Your task to perform on an android device: Search for pizza restaurants on Maps Image 0: 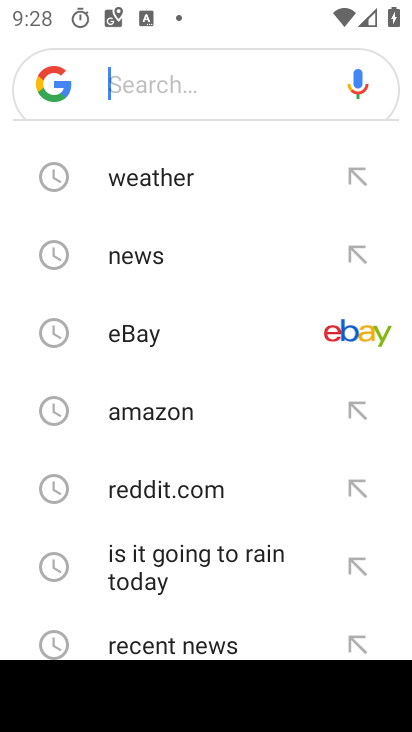
Step 0: press home button
Your task to perform on an android device: Search for pizza restaurants on Maps Image 1: 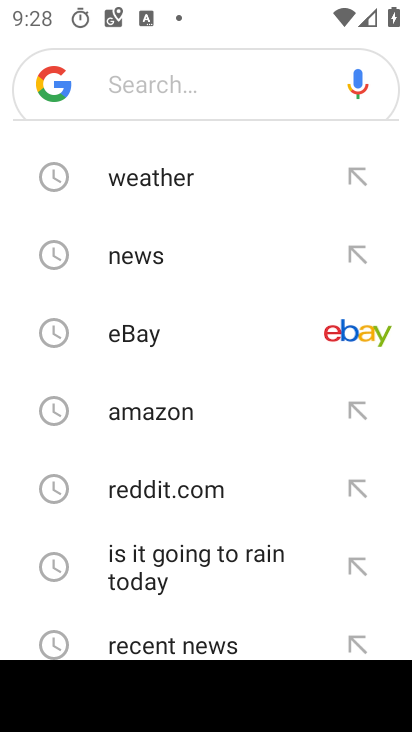
Step 1: press home button
Your task to perform on an android device: Search for pizza restaurants on Maps Image 2: 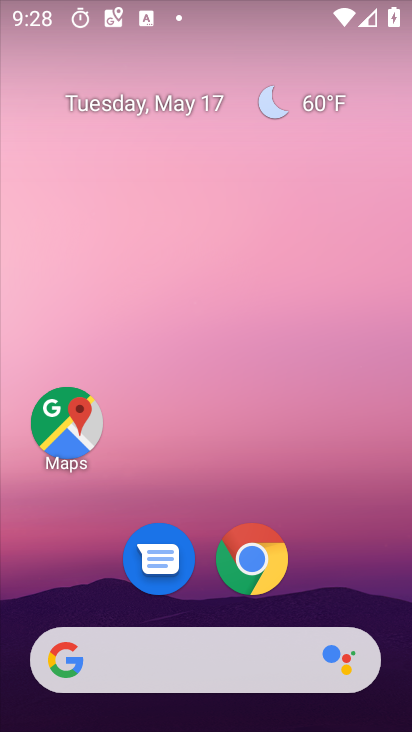
Step 2: drag from (229, 632) to (238, 43)
Your task to perform on an android device: Search for pizza restaurants on Maps Image 3: 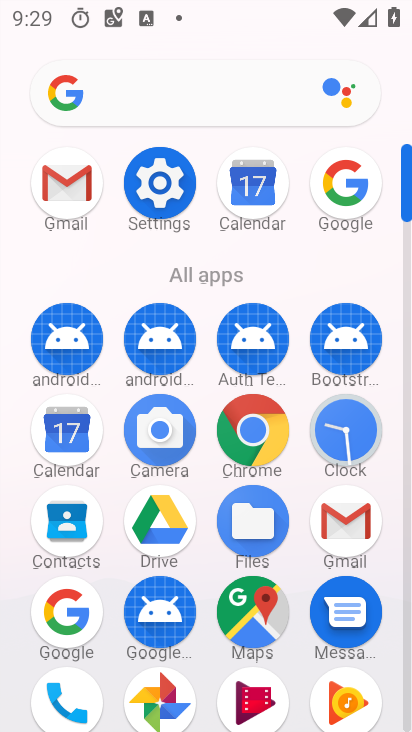
Step 3: click (239, 623)
Your task to perform on an android device: Search for pizza restaurants on Maps Image 4: 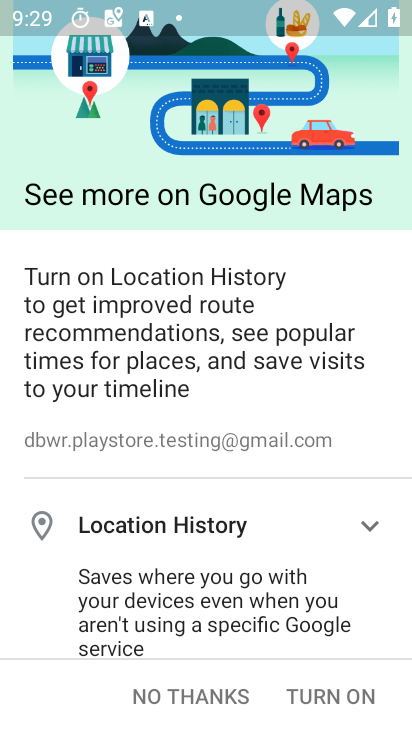
Step 4: click (347, 697)
Your task to perform on an android device: Search for pizza restaurants on Maps Image 5: 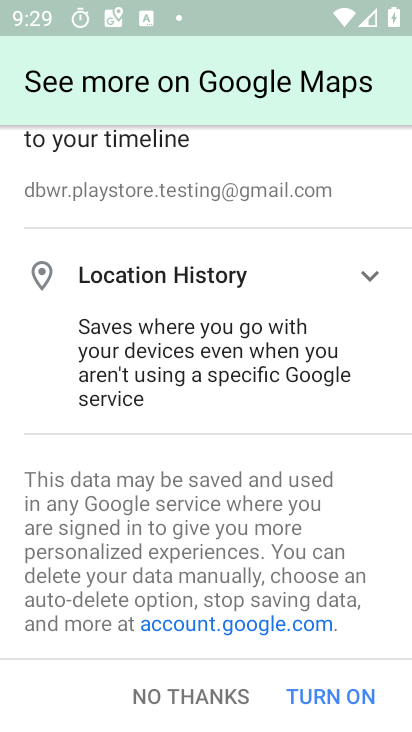
Step 5: click (346, 698)
Your task to perform on an android device: Search for pizza restaurants on Maps Image 6: 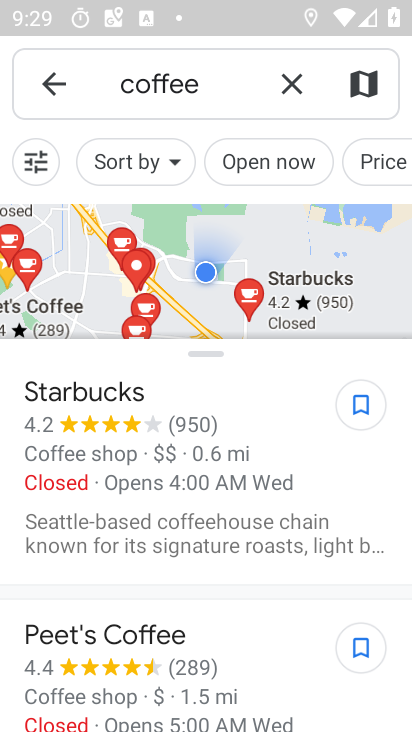
Step 6: click (285, 91)
Your task to perform on an android device: Search for pizza restaurants on Maps Image 7: 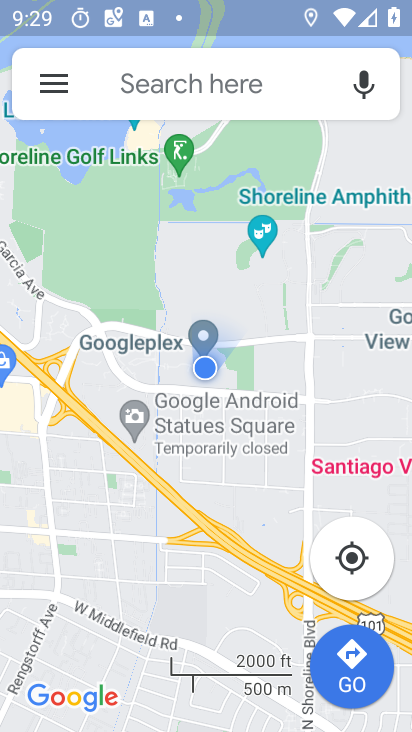
Step 7: click (276, 84)
Your task to perform on an android device: Search for pizza restaurants on Maps Image 8: 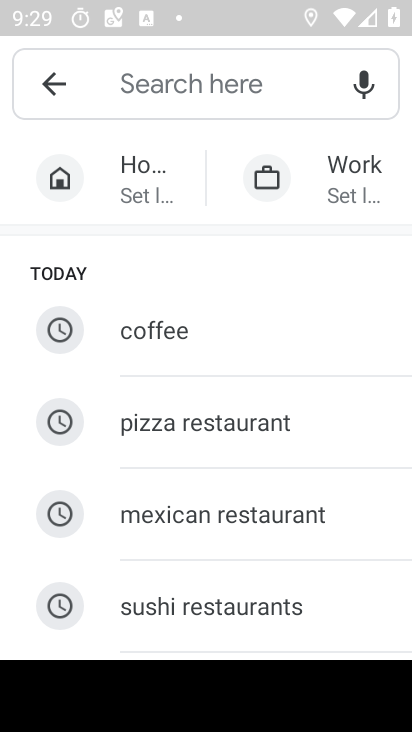
Step 8: click (278, 437)
Your task to perform on an android device: Search for pizza restaurants on Maps Image 9: 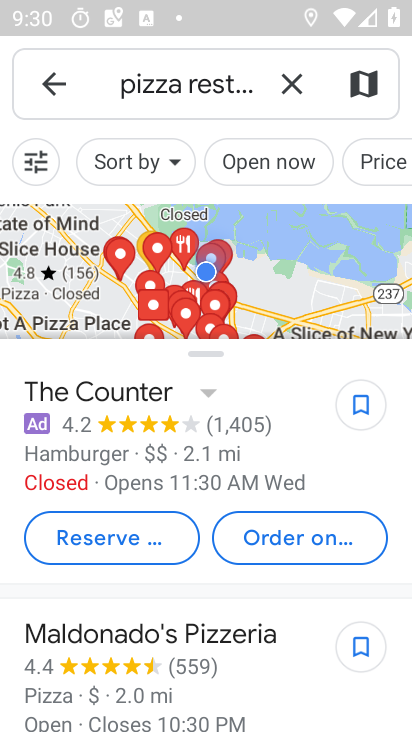
Step 9: task complete